Your task to perform on an android device: Look up the best rated headphones on Walmart. Image 0: 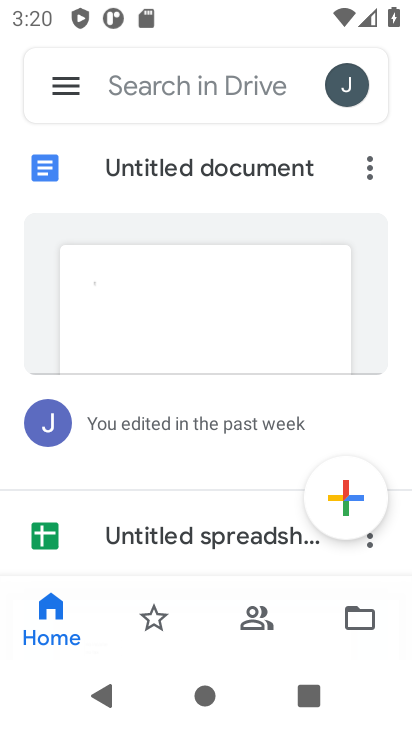
Step 0: click (145, 99)
Your task to perform on an android device: Look up the best rated headphones on Walmart. Image 1: 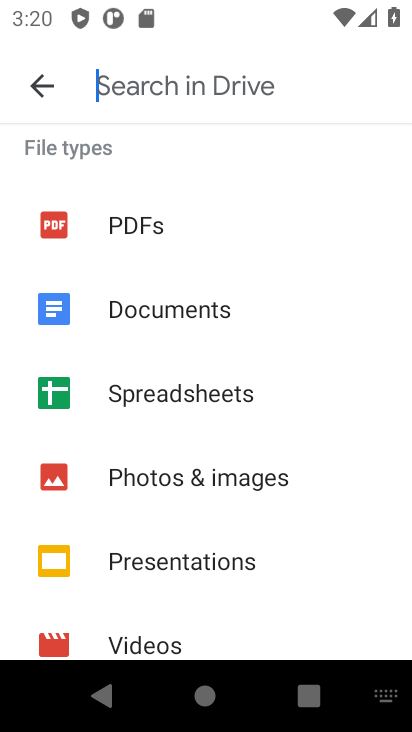
Step 1: type " best rated headphones"
Your task to perform on an android device: Look up the best rated headphones on Walmart. Image 2: 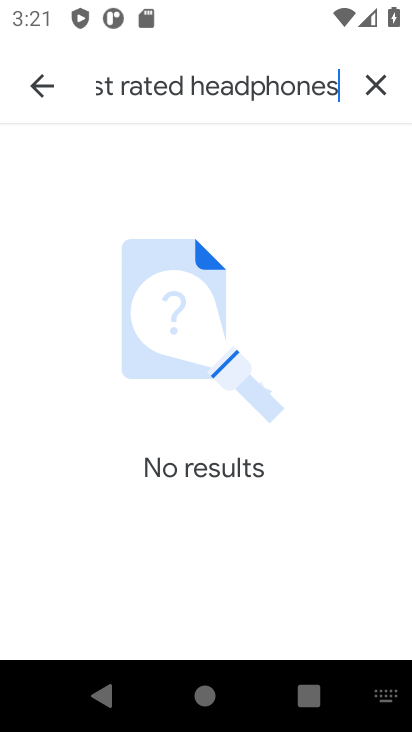
Step 2: click (376, 91)
Your task to perform on an android device: Look up the best rated headphones on Walmart. Image 3: 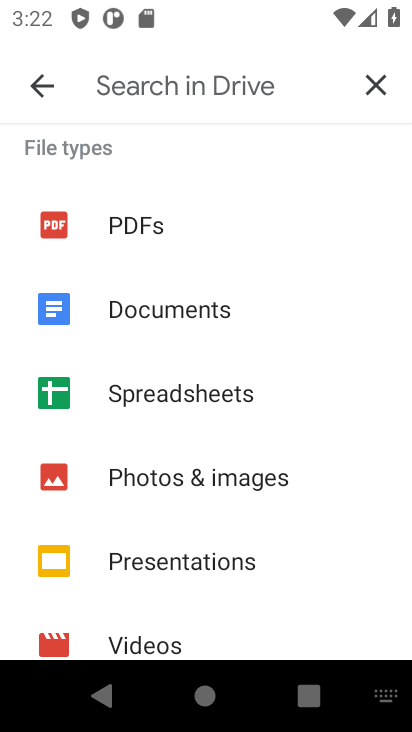
Step 3: type " best rated headphones"
Your task to perform on an android device: Look up the best rated headphones on Walmart. Image 4: 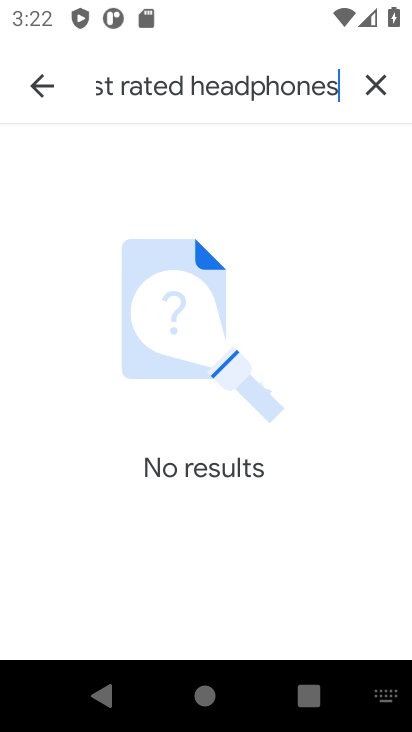
Step 4: task complete